Your task to perform on an android device: toggle sleep mode Image 0: 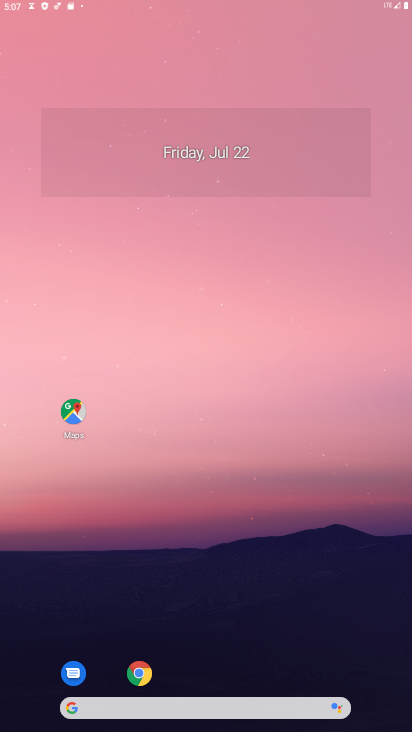
Step 0: press home button
Your task to perform on an android device: toggle sleep mode Image 1: 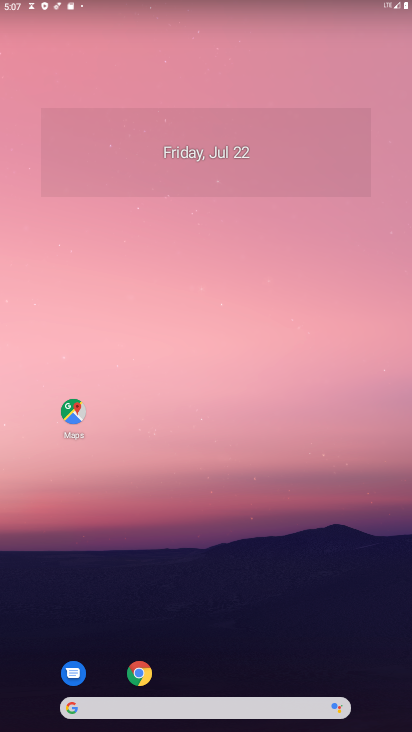
Step 1: drag from (242, 525) to (205, 149)
Your task to perform on an android device: toggle sleep mode Image 2: 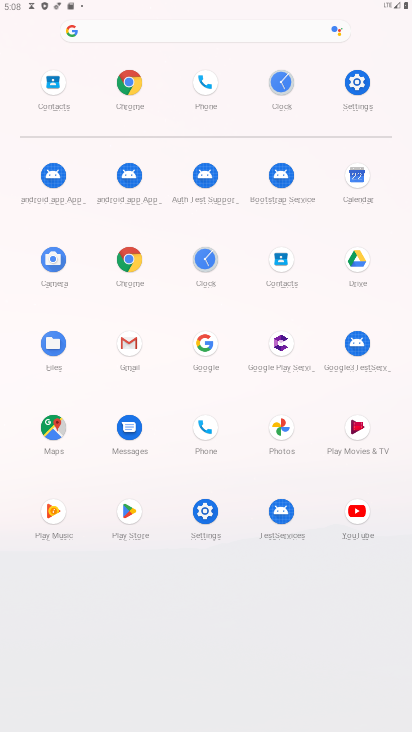
Step 2: click (361, 89)
Your task to perform on an android device: toggle sleep mode Image 3: 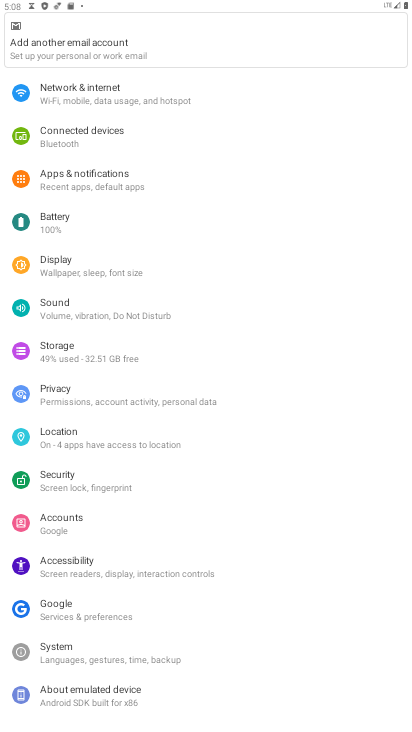
Step 3: click (56, 259)
Your task to perform on an android device: toggle sleep mode Image 4: 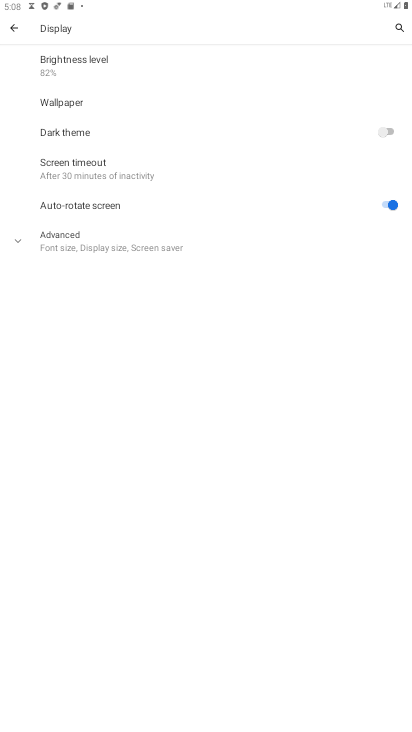
Step 4: task complete